Your task to perform on an android device: install app "Google Home" Image 0: 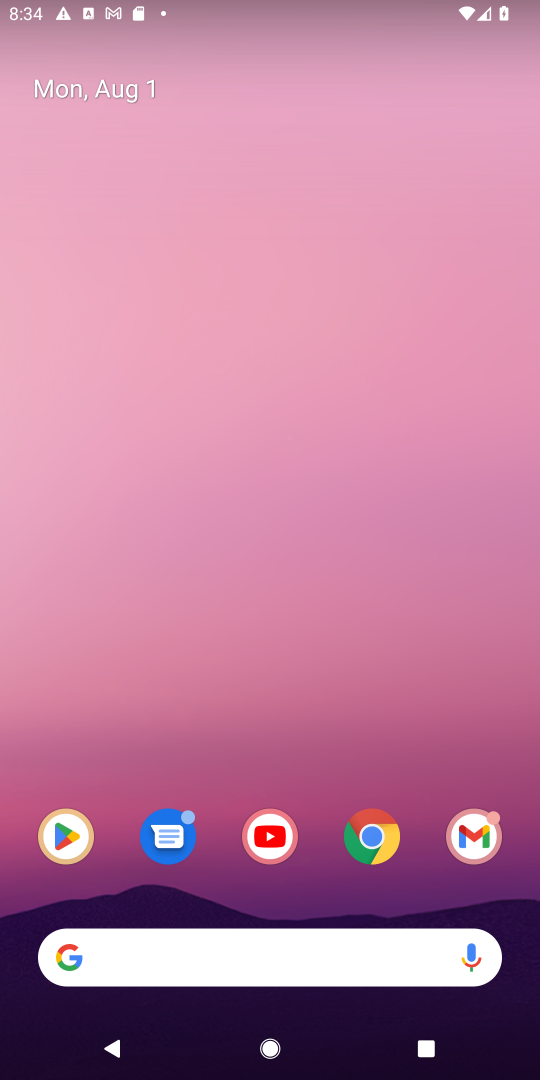
Step 0: click (67, 833)
Your task to perform on an android device: install app "Google Home" Image 1: 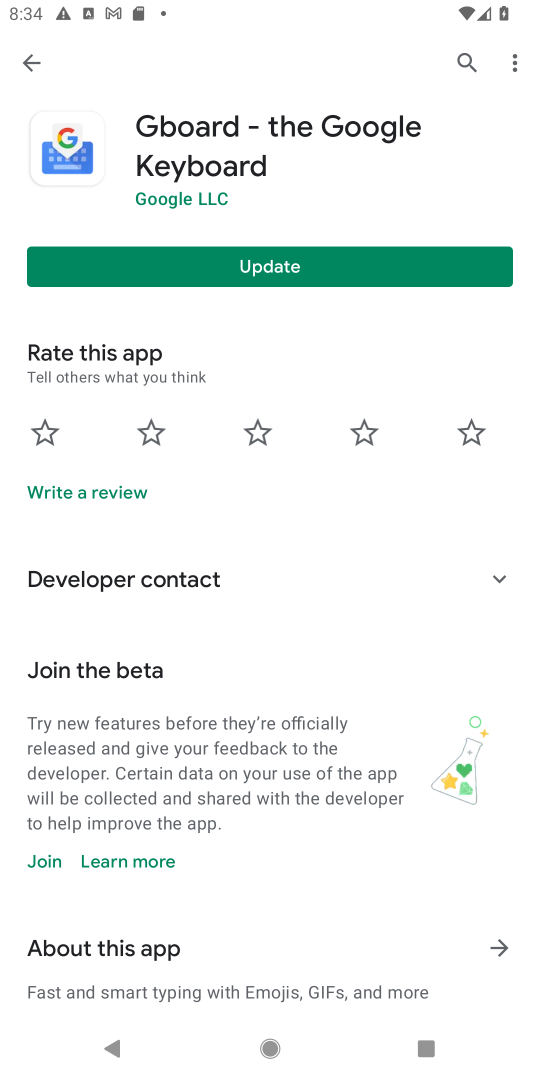
Step 1: click (470, 54)
Your task to perform on an android device: install app "Google Home" Image 2: 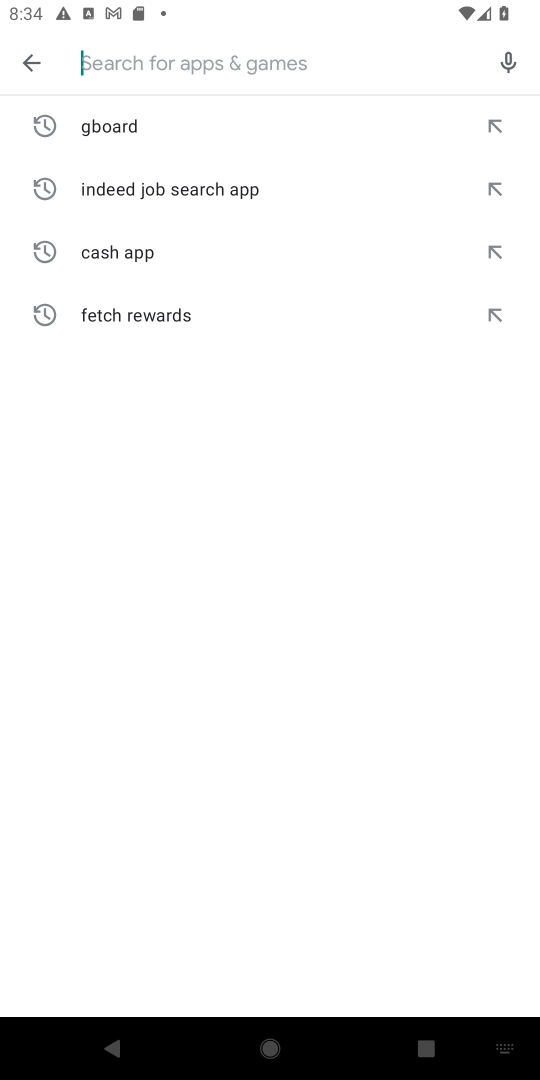
Step 2: type "Google Home"
Your task to perform on an android device: install app "Google Home" Image 3: 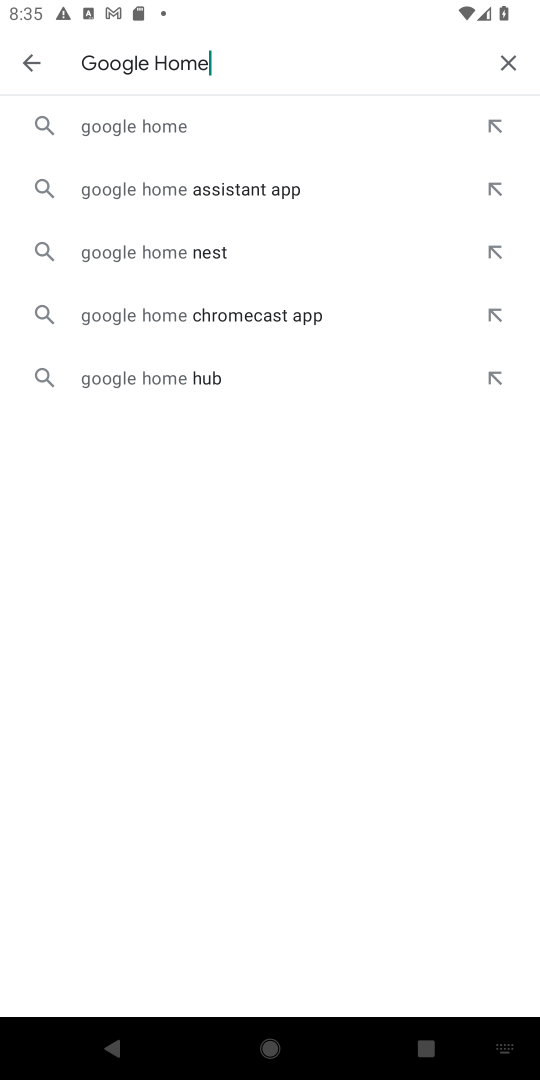
Step 3: click (161, 127)
Your task to perform on an android device: install app "Google Home" Image 4: 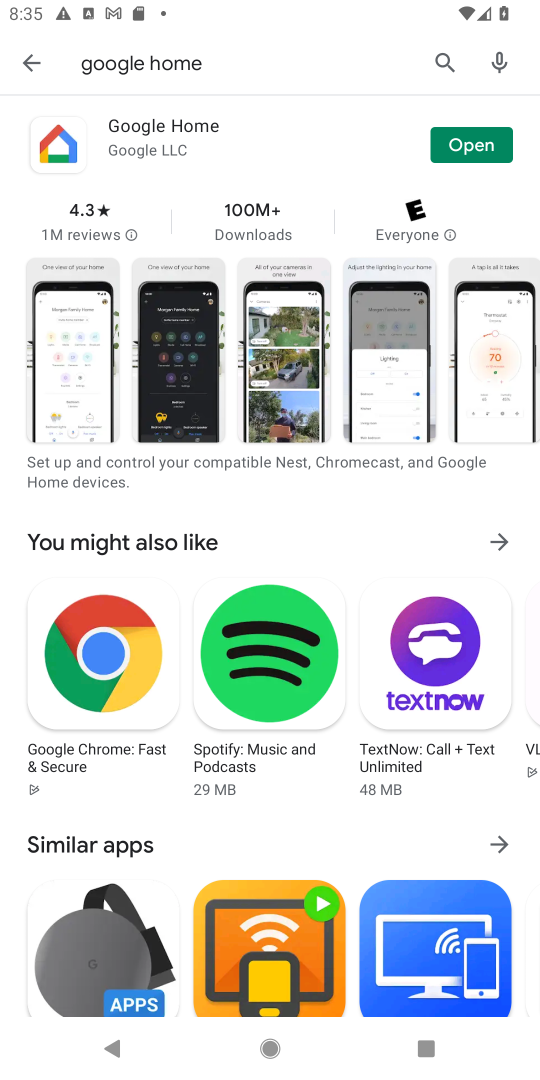
Step 4: task complete